Your task to perform on an android device: Search for custom wallets on etsy. Image 0: 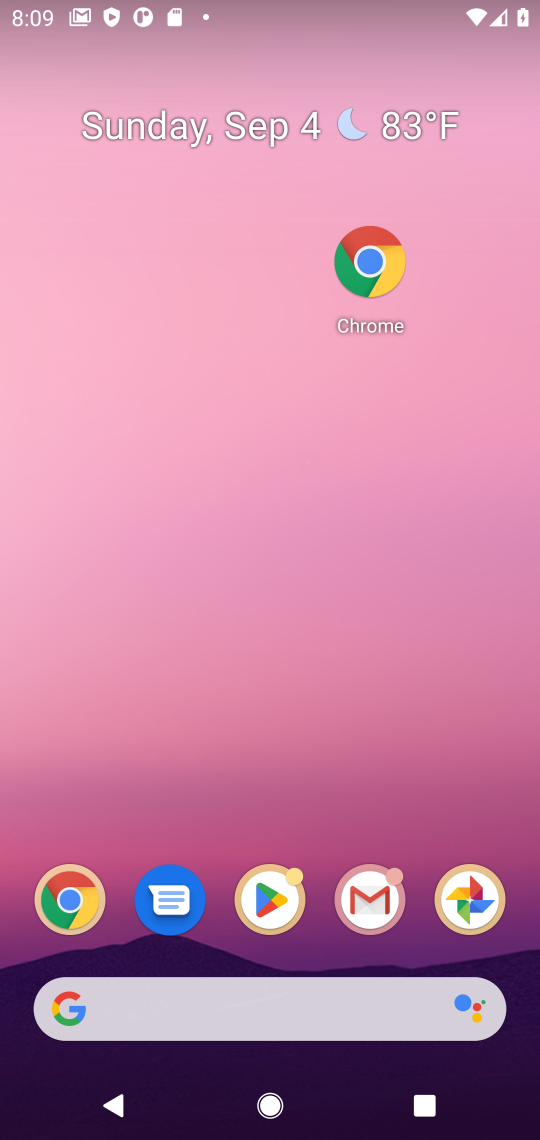
Step 0: click (383, 290)
Your task to perform on an android device: Search for custom wallets on etsy. Image 1: 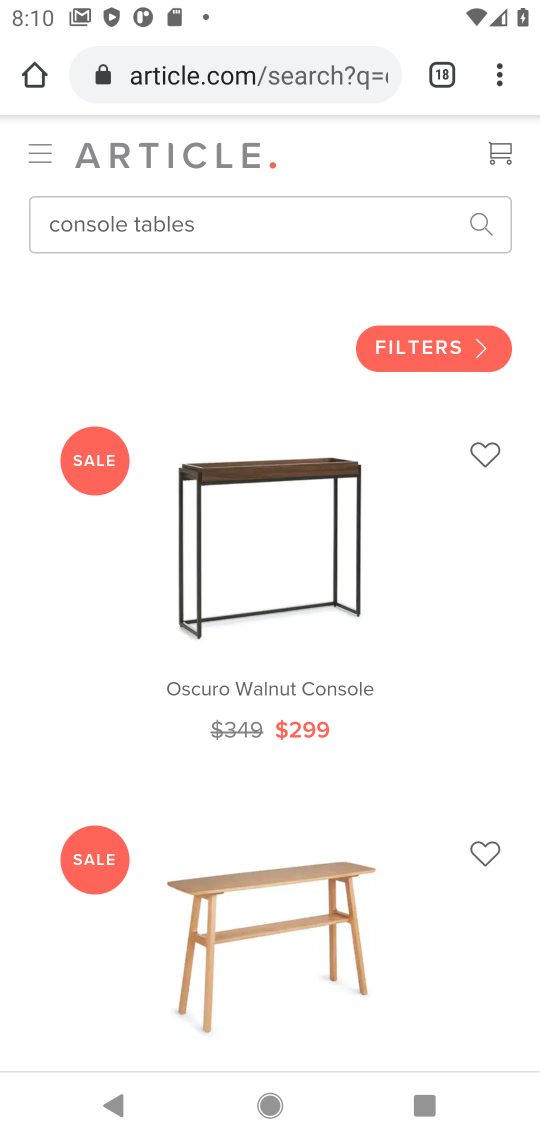
Step 1: click (445, 76)
Your task to perform on an android device: Search for custom wallets on etsy. Image 2: 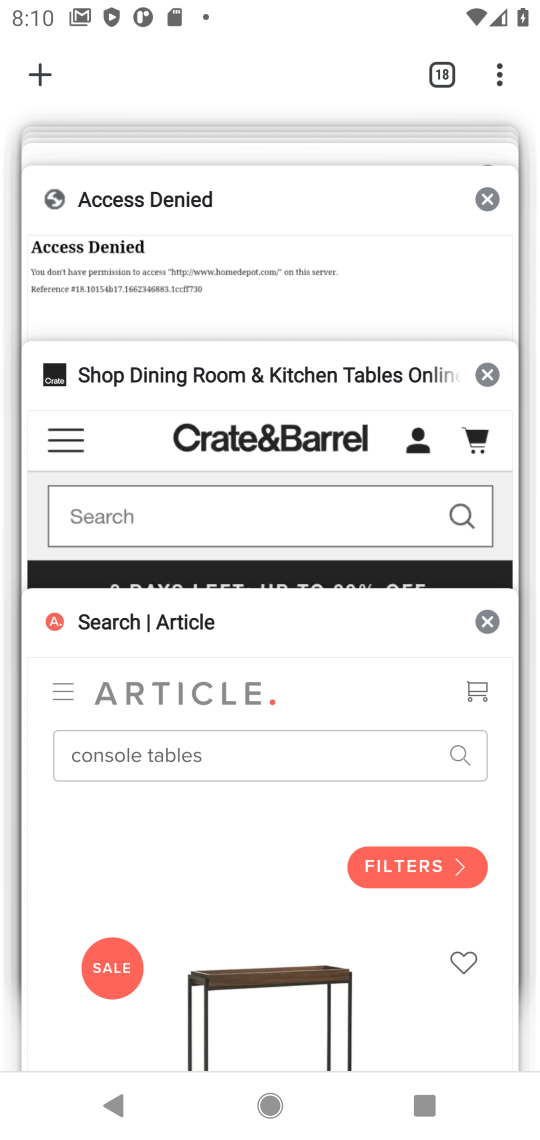
Step 2: click (488, 198)
Your task to perform on an android device: Search for custom wallets on etsy. Image 3: 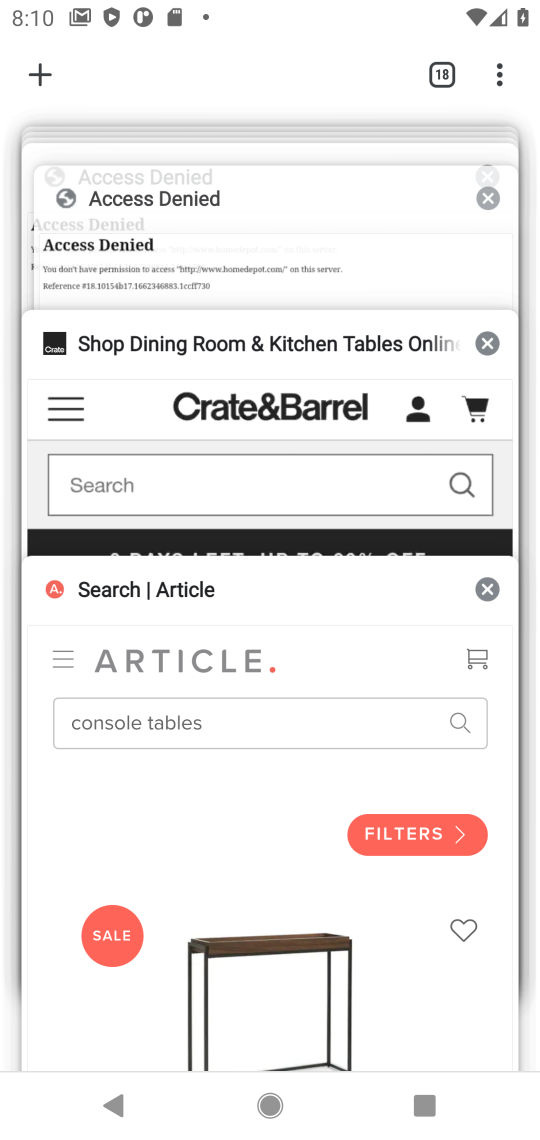
Step 3: click (488, 198)
Your task to perform on an android device: Search for custom wallets on etsy. Image 4: 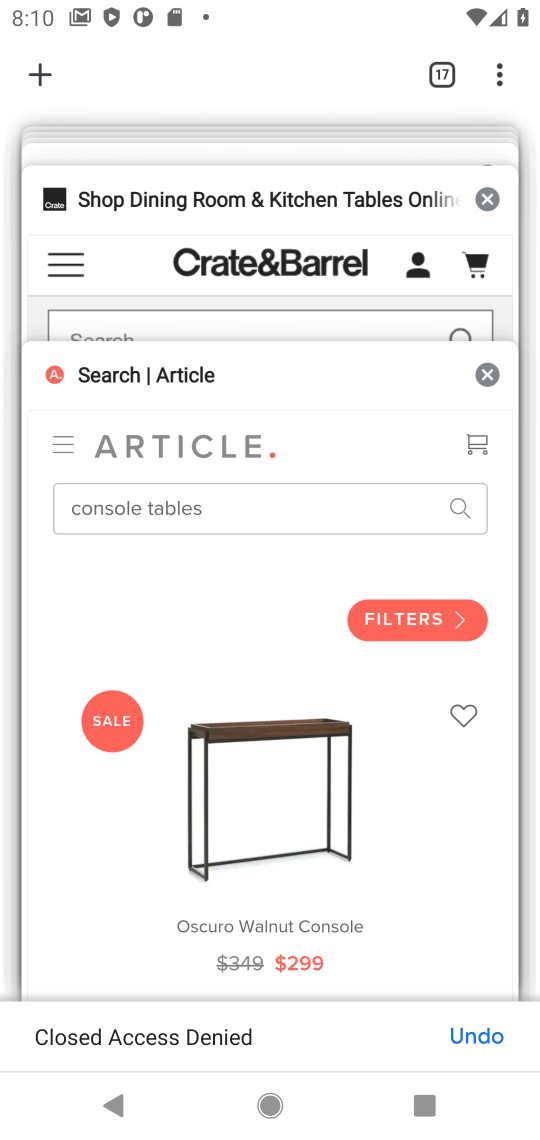
Step 4: click (488, 198)
Your task to perform on an android device: Search for custom wallets on etsy. Image 5: 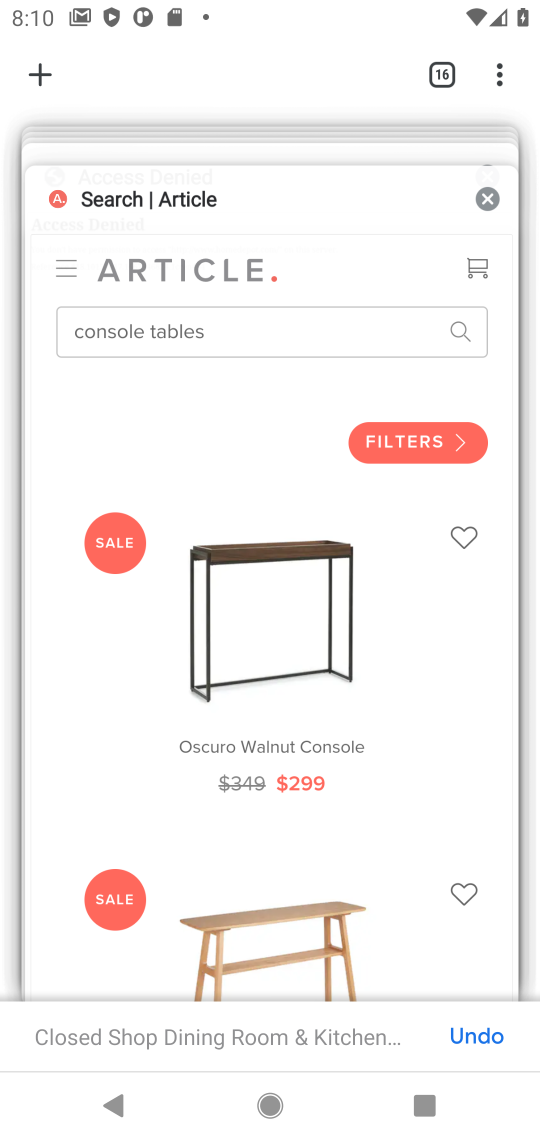
Step 5: click (488, 198)
Your task to perform on an android device: Search for custom wallets on etsy. Image 6: 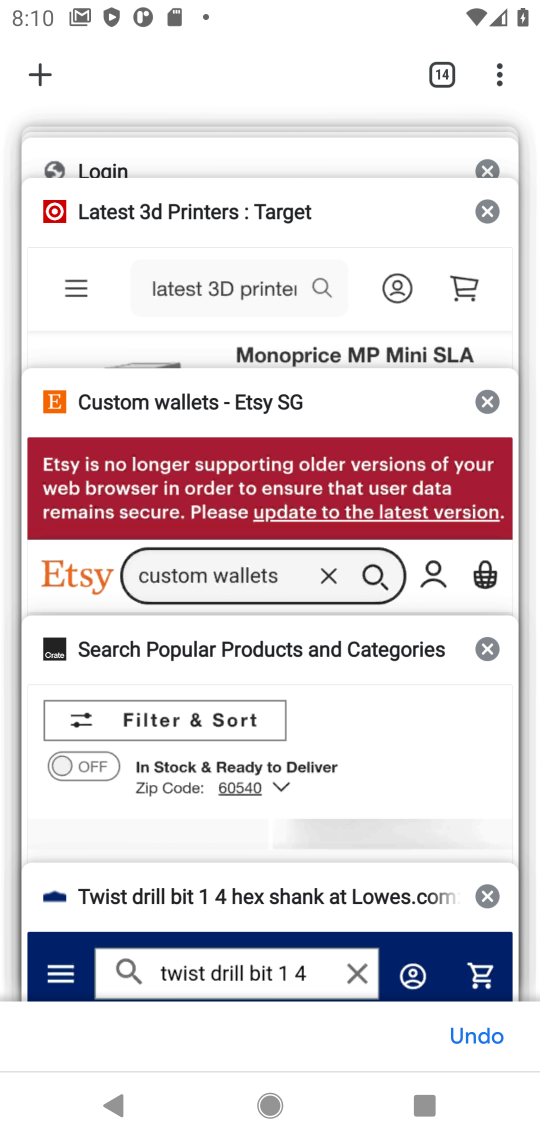
Step 6: click (486, 182)
Your task to perform on an android device: Search for custom wallets on etsy. Image 7: 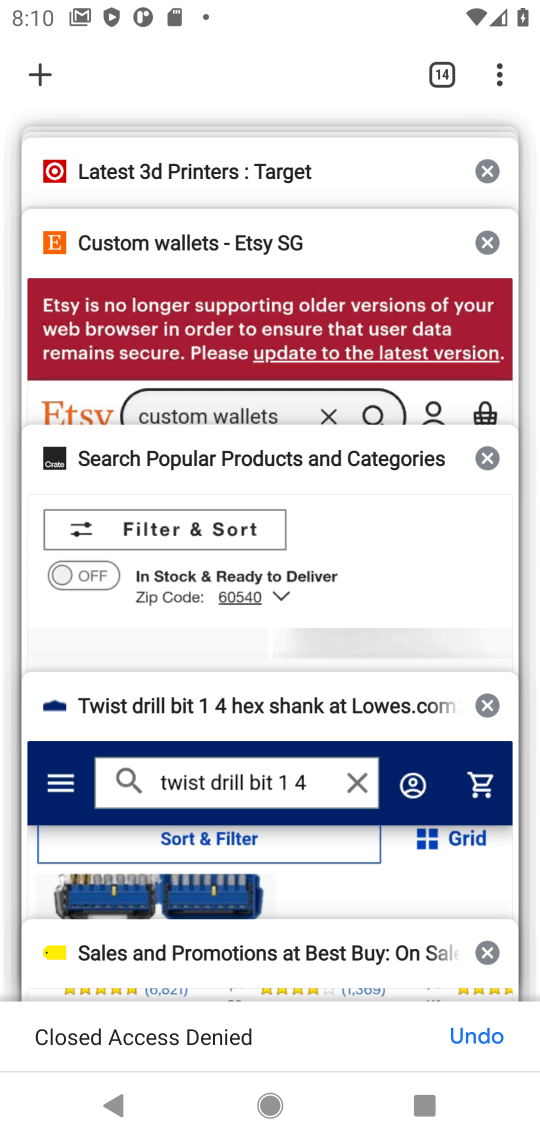
Step 7: click (486, 182)
Your task to perform on an android device: Search for custom wallets on etsy. Image 8: 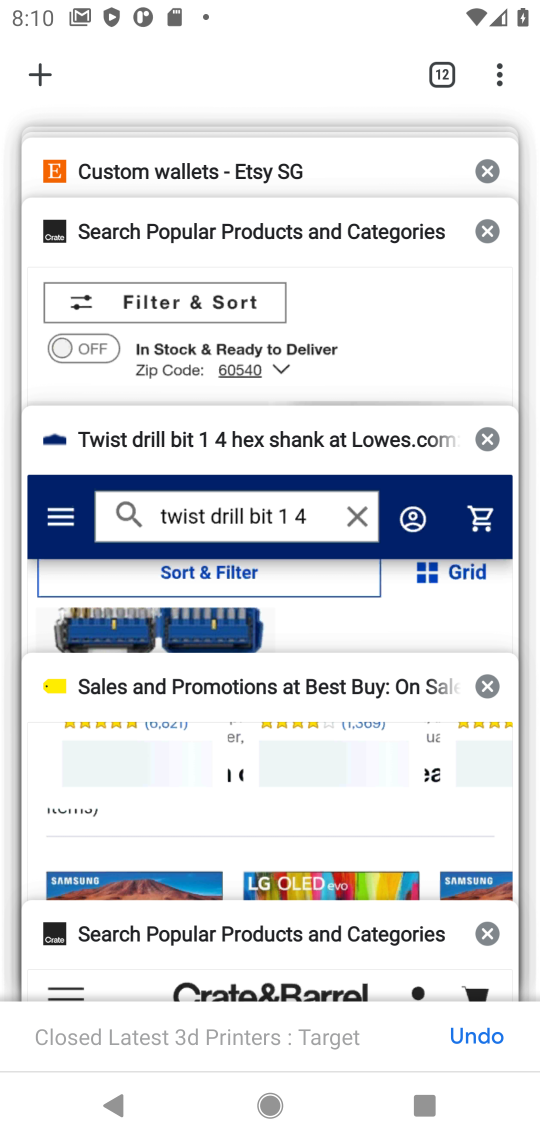
Step 8: click (486, 182)
Your task to perform on an android device: Search for custom wallets on etsy. Image 9: 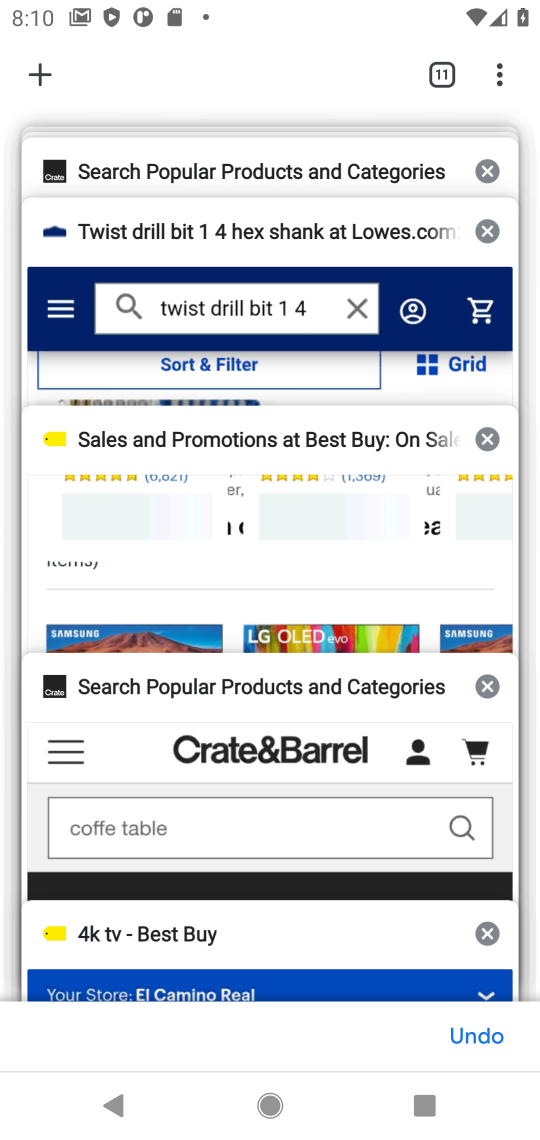
Step 9: click (486, 182)
Your task to perform on an android device: Search for custom wallets on etsy. Image 10: 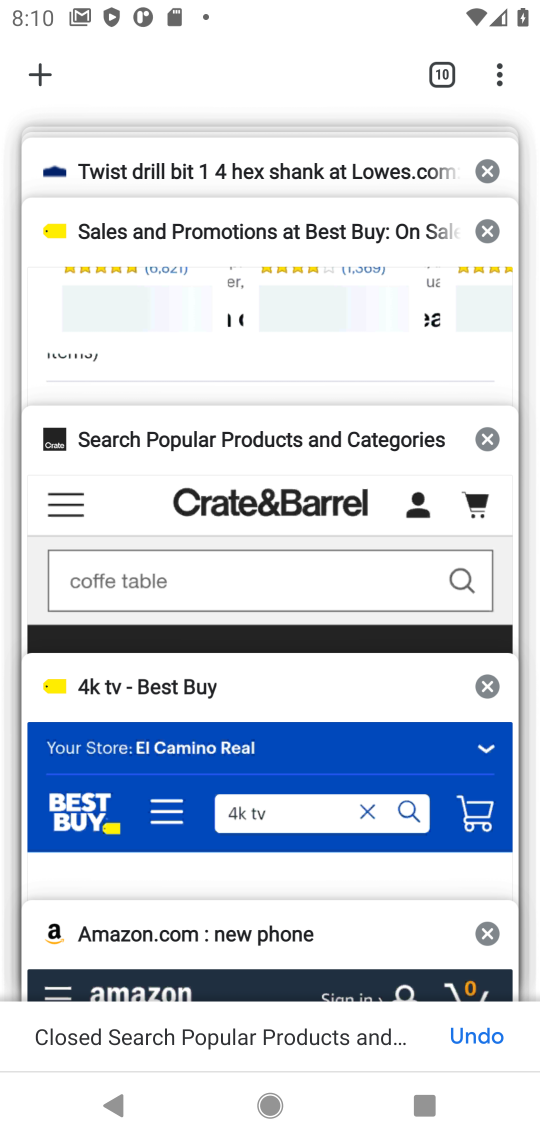
Step 10: click (486, 182)
Your task to perform on an android device: Search for custom wallets on etsy. Image 11: 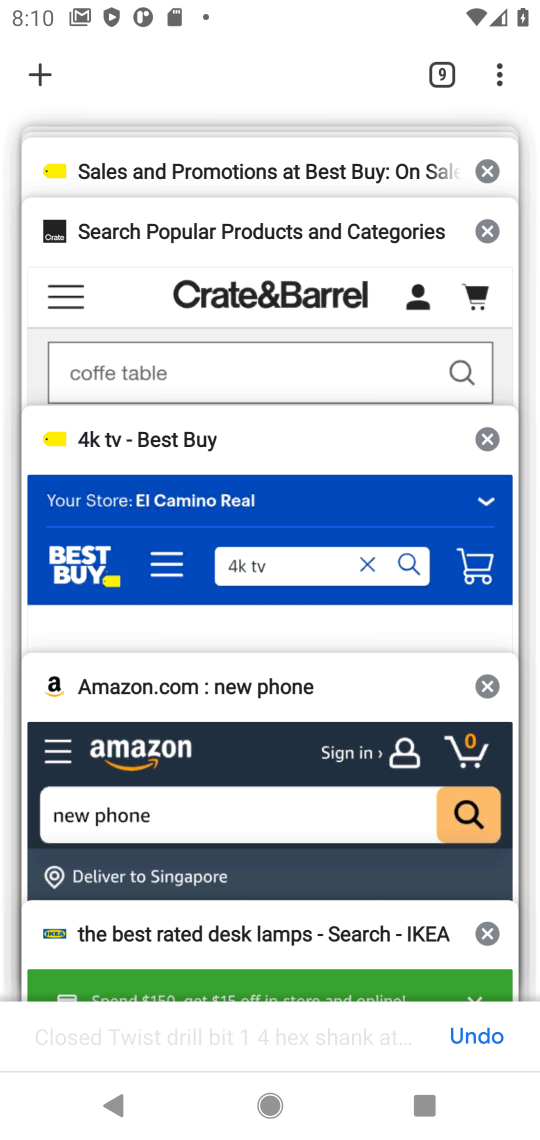
Step 11: click (486, 182)
Your task to perform on an android device: Search for custom wallets on etsy. Image 12: 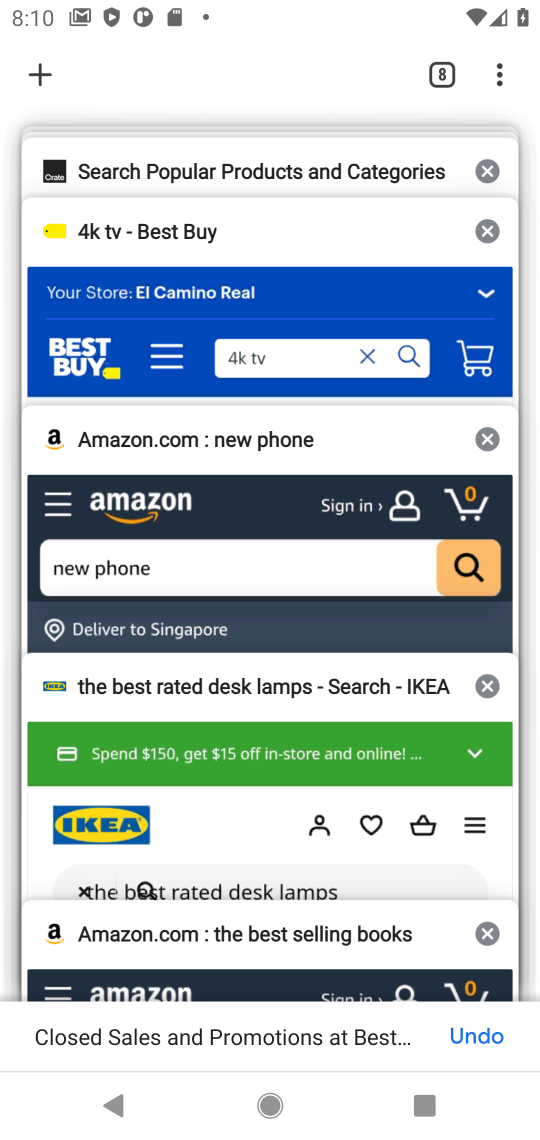
Step 12: click (486, 175)
Your task to perform on an android device: Search for custom wallets on etsy. Image 13: 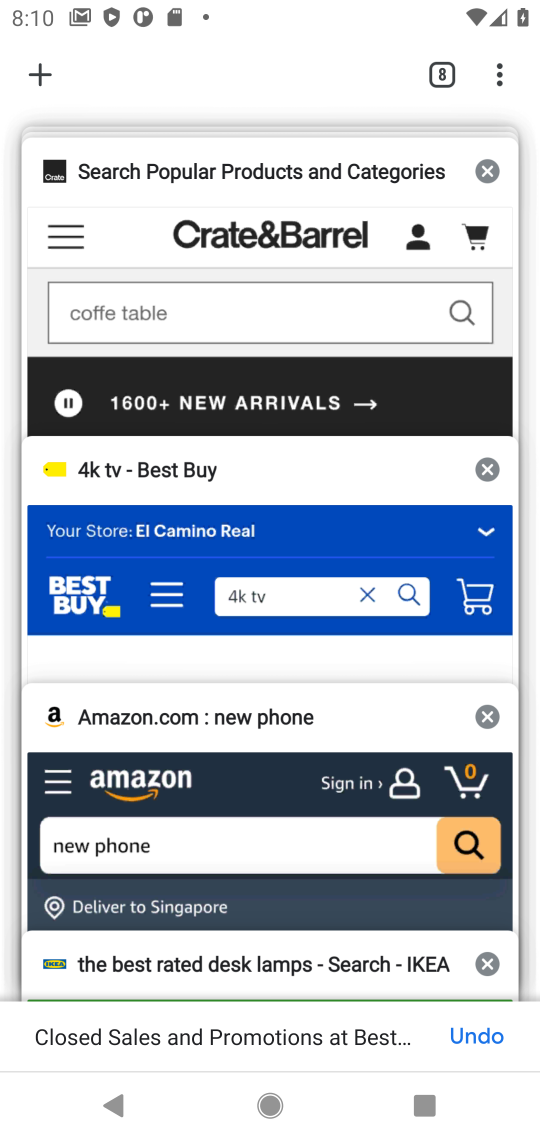
Step 13: click (486, 175)
Your task to perform on an android device: Search for custom wallets on etsy. Image 14: 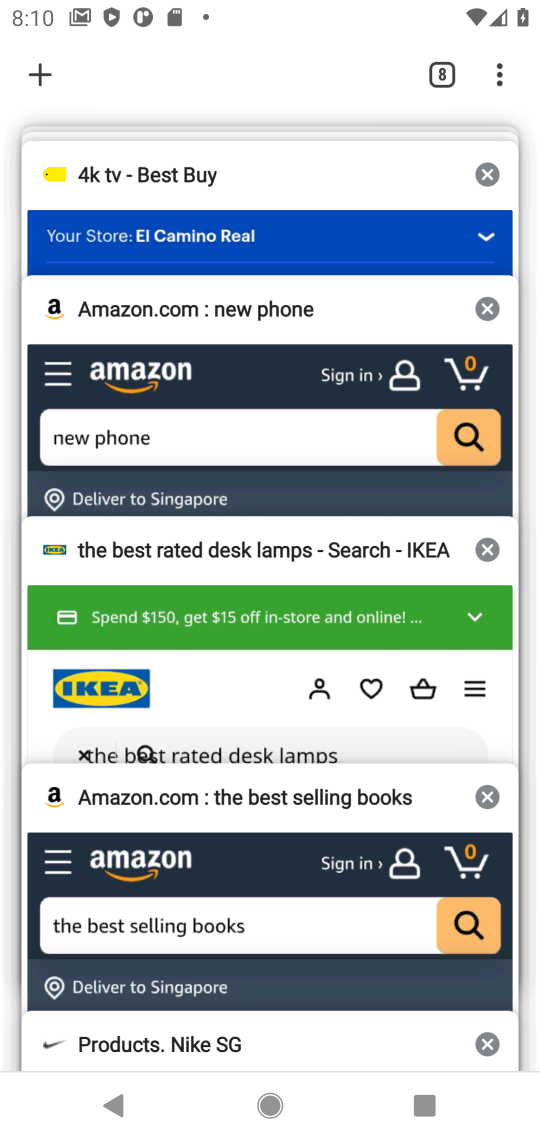
Step 14: click (486, 175)
Your task to perform on an android device: Search for custom wallets on etsy. Image 15: 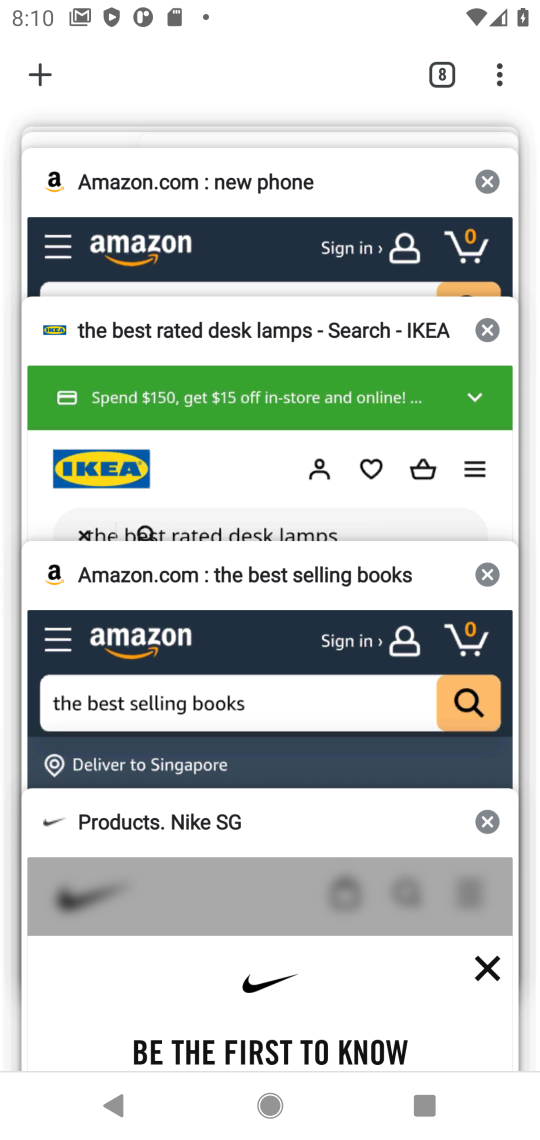
Step 15: click (486, 175)
Your task to perform on an android device: Search for custom wallets on etsy. Image 16: 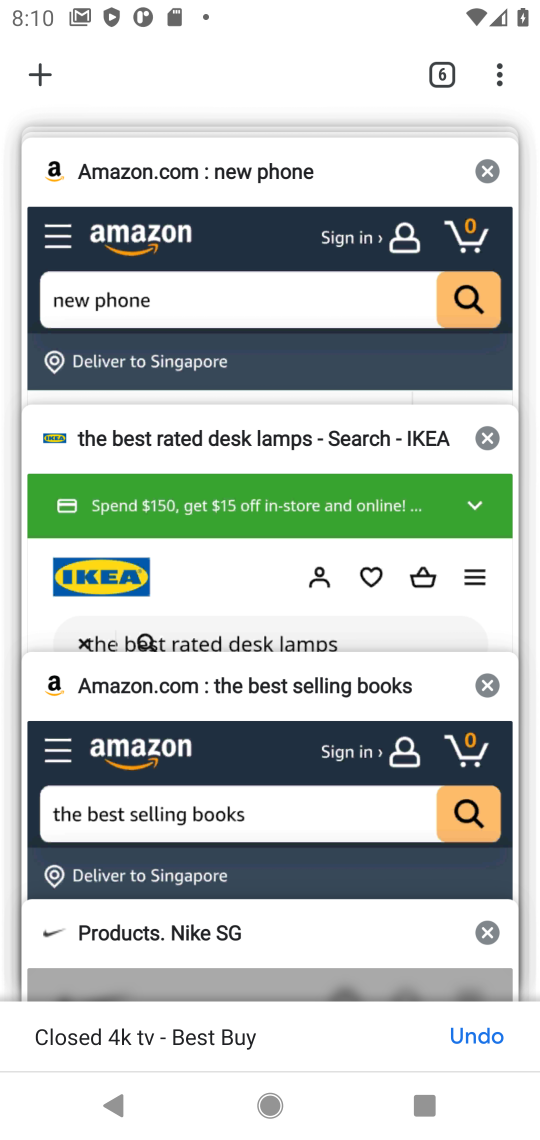
Step 16: click (486, 175)
Your task to perform on an android device: Search for custom wallets on etsy. Image 17: 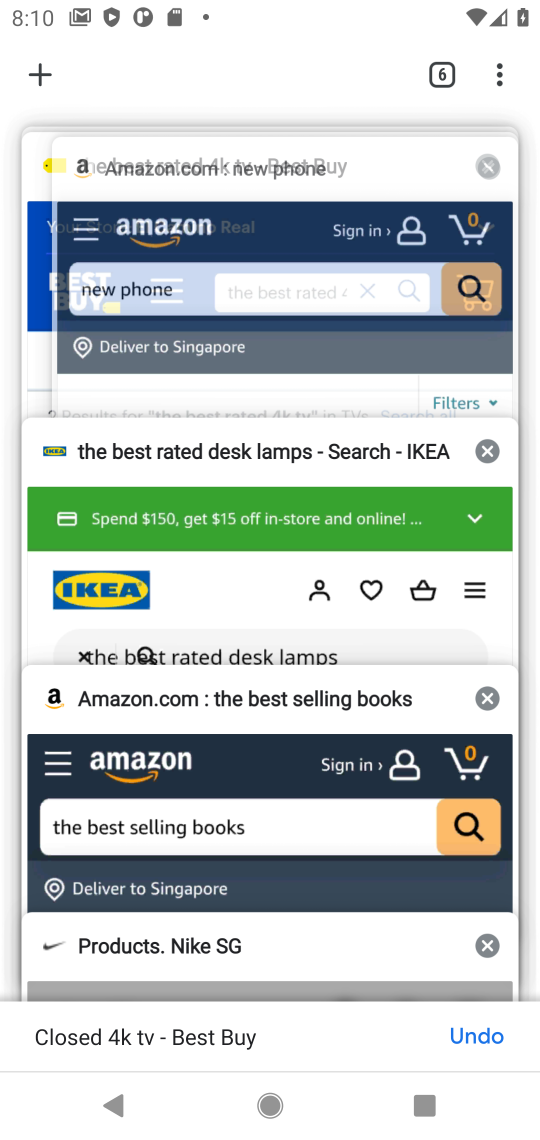
Step 17: click (486, 175)
Your task to perform on an android device: Search for custom wallets on etsy. Image 18: 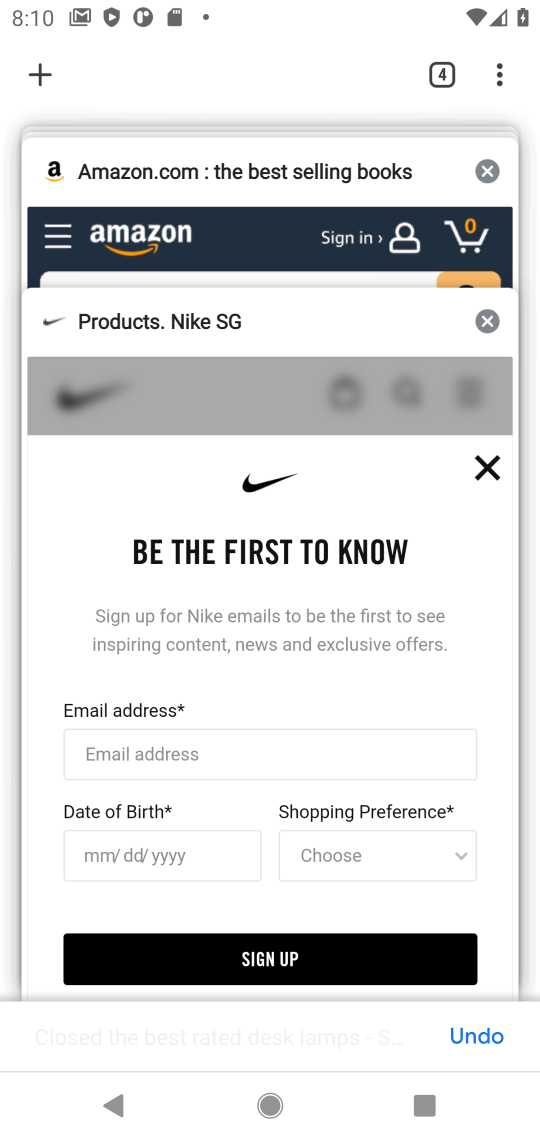
Step 18: click (486, 175)
Your task to perform on an android device: Search for custom wallets on etsy. Image 19: 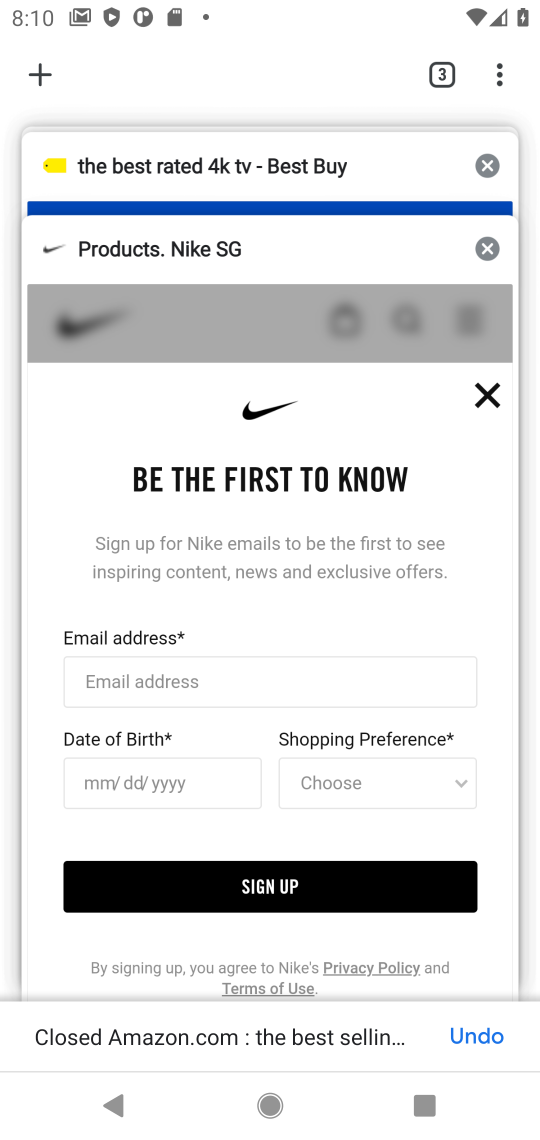
Step 19: click (486, 175)
Your task to perform on an android device: Search for custom wallets on etsy. Image 20: 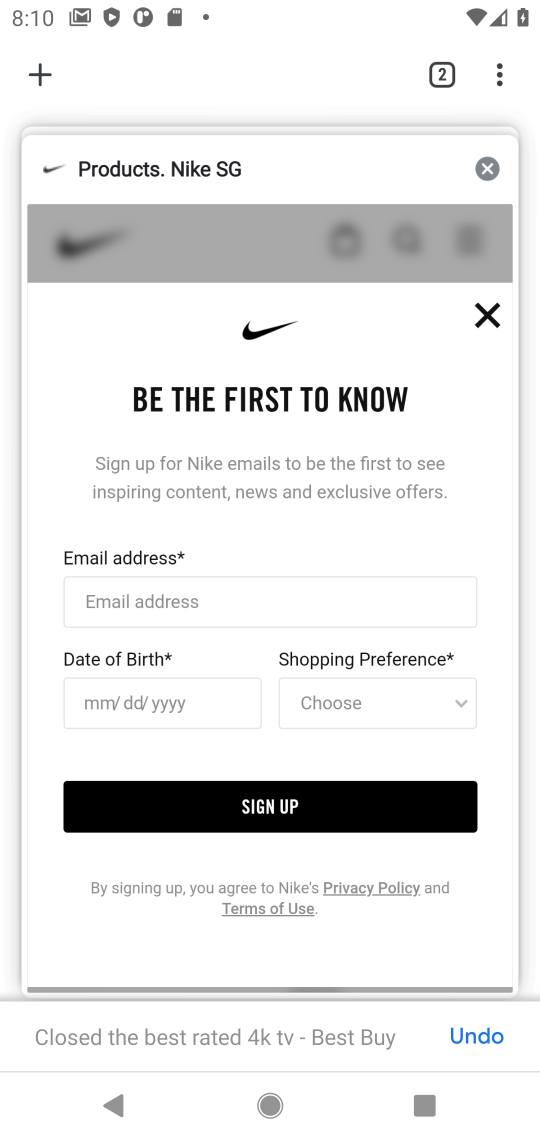
Step 20: click (486, 175)
Your task to perform on an android device: Search for custom wallets on etsy. Image 21: 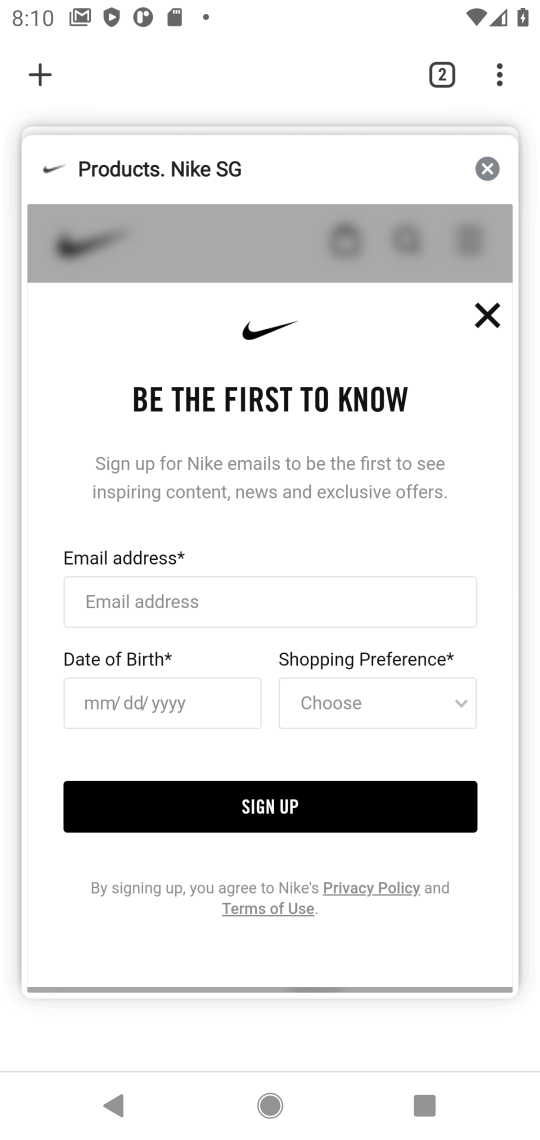
Step 21: click (486, 175)
Your task to perform on an android device: Search for custom wallets on etsy. Image 22: 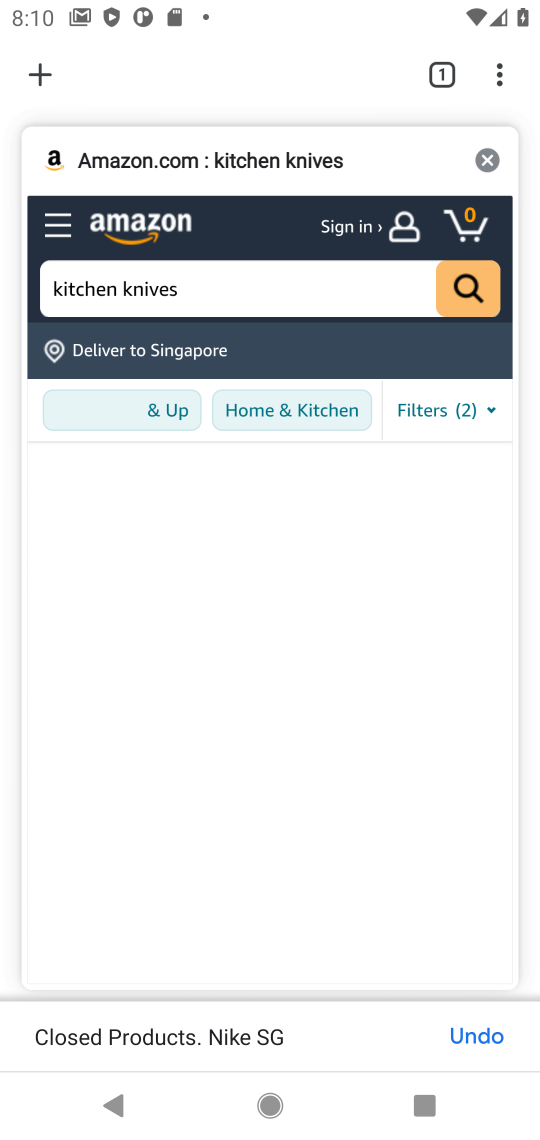
Step 22: click (488, 163)
Your task to perform on an android device: Search for custom wallets on etsy. Image 23: 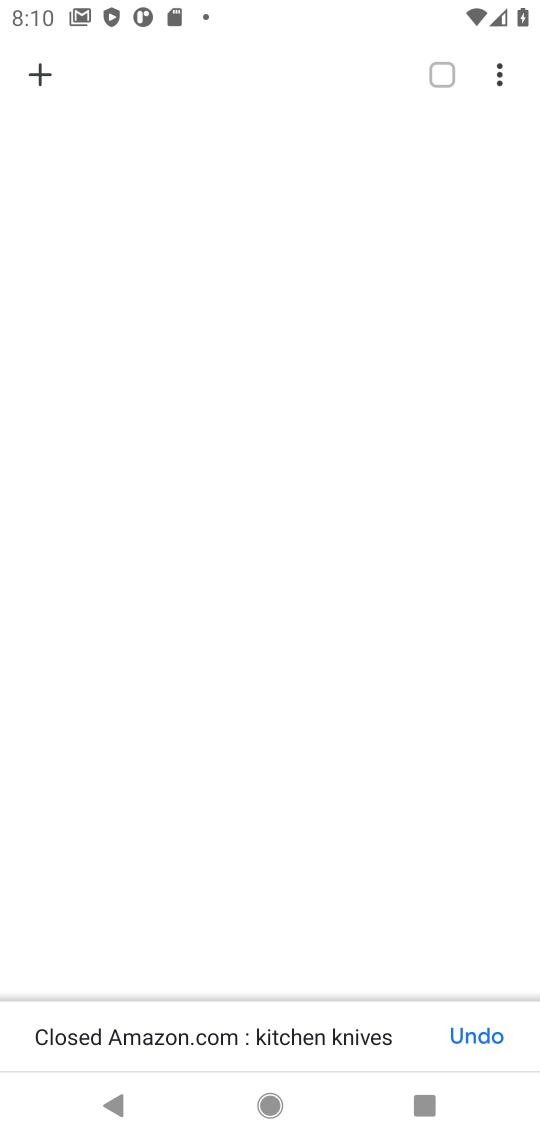
Step 23: click (33, 72)
Your task to perform on an android device: Search for custom wallets on etsy. Image 24: 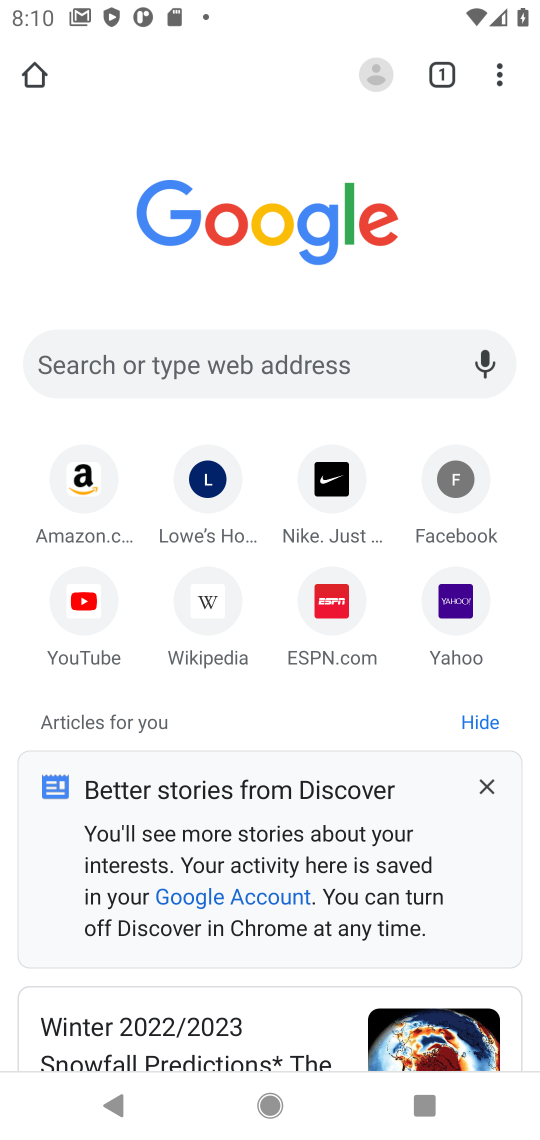
Step 24: click (257, 381)
Your task to perform on an android device: Search for custom wallets on etsy. Image 25: 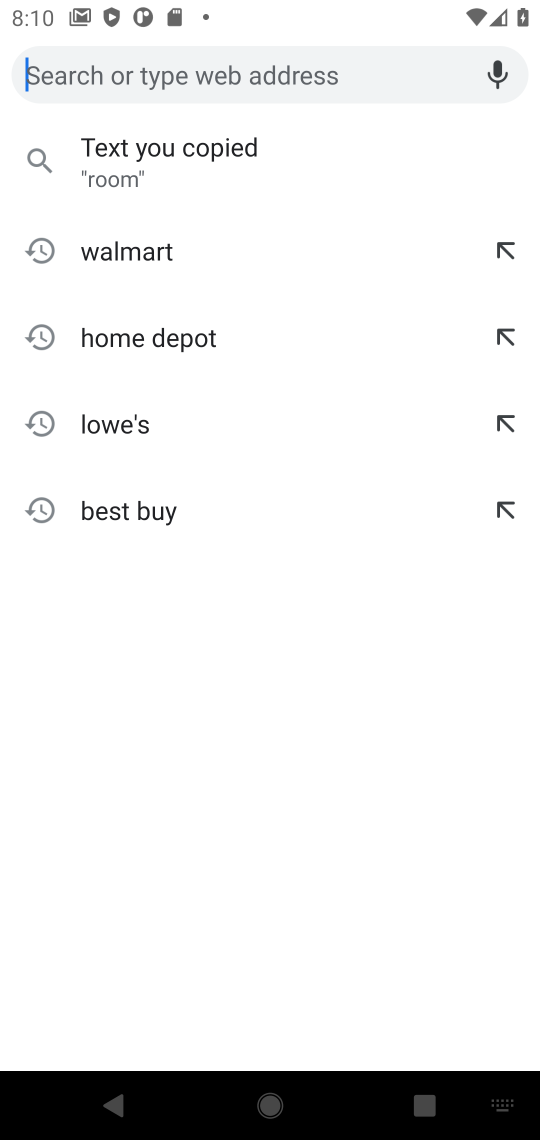
Step 25: type "etsy"
Your task to perform on an android device: Search for custom wallets on etsy. Image 26: 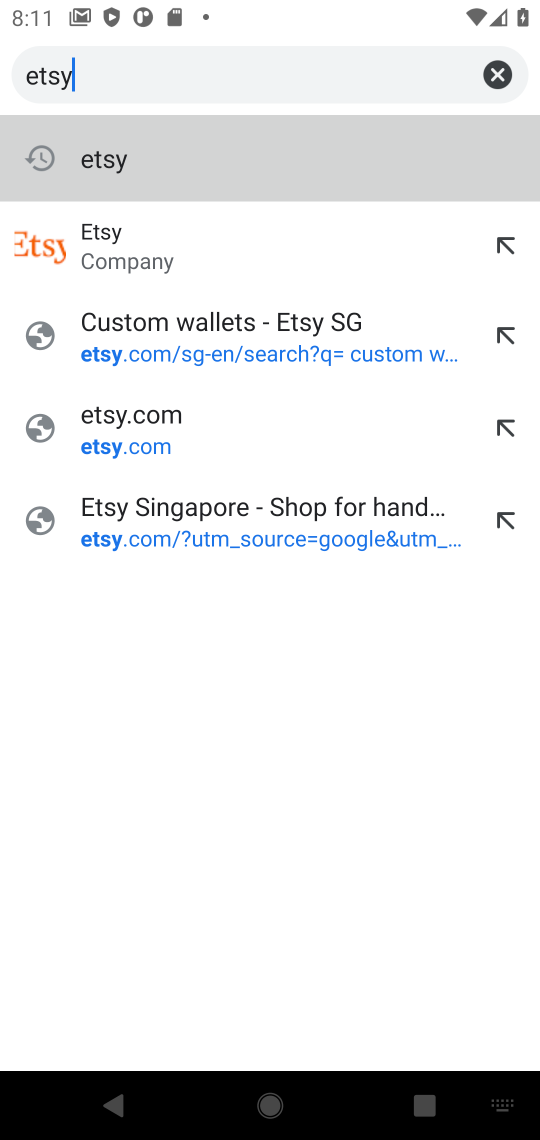
Step 26: click (313, 170)
Your task to perform on an android device: Search for custom wallets on etsy. Image 27: 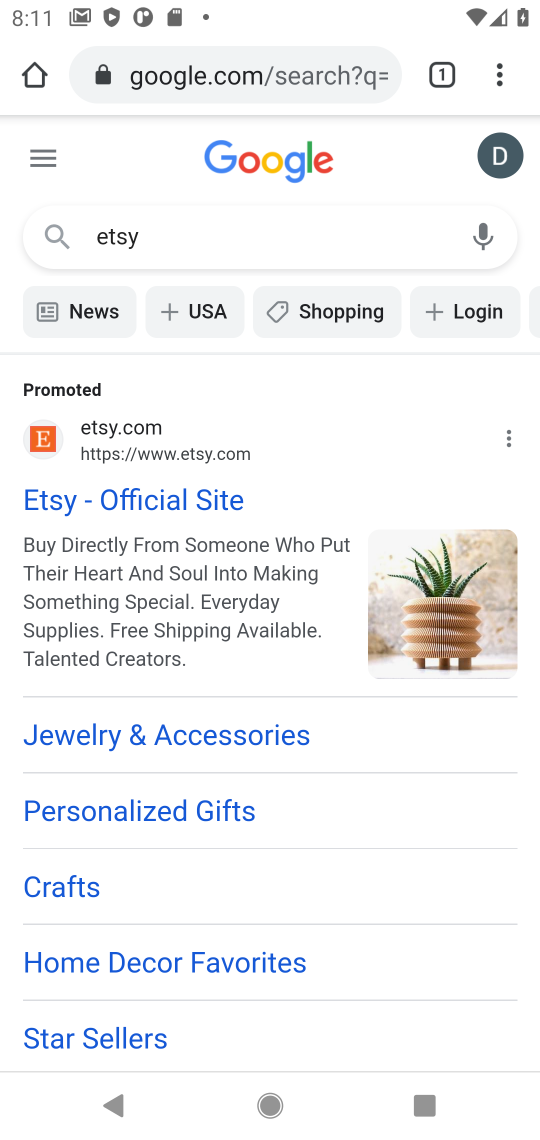
Step 27: click (142, 494)
Your task to perform on an android device: Search for custom wallets on etsy. Image 28: 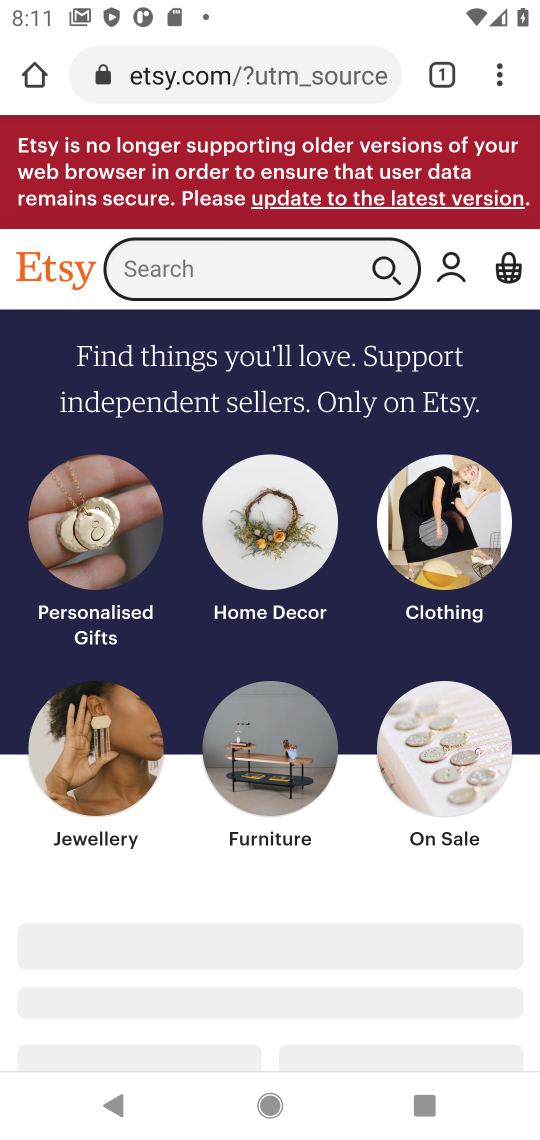
Step 28: click (271, 270)
Your task to perform on an android device: Search for custom wallets on etsy. Image 29: 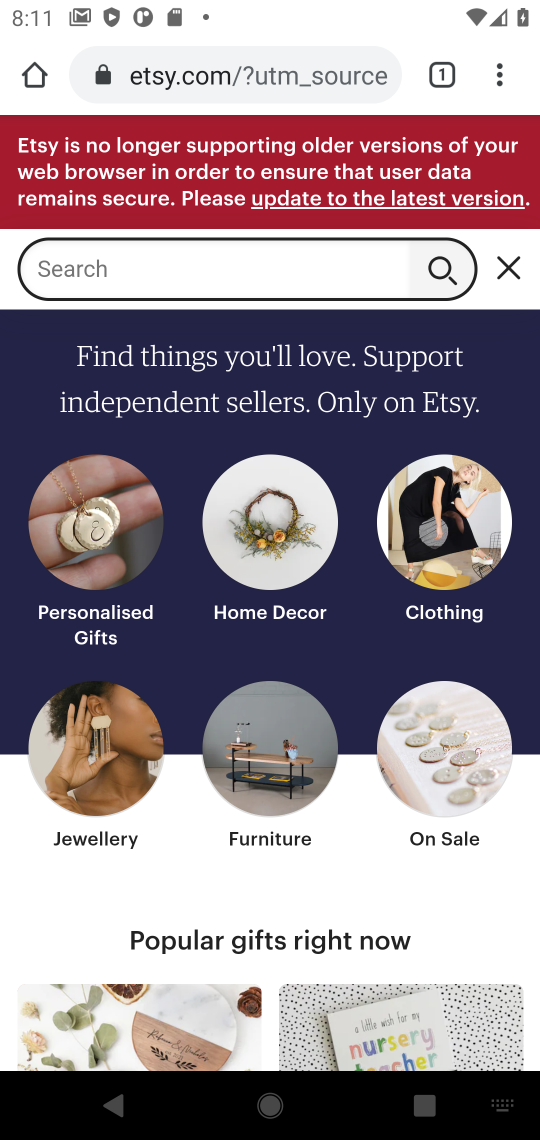
Step 29: type "custom wallet"
Your task to perform on an android device: Search for custom wallets on etsy. Image 30: 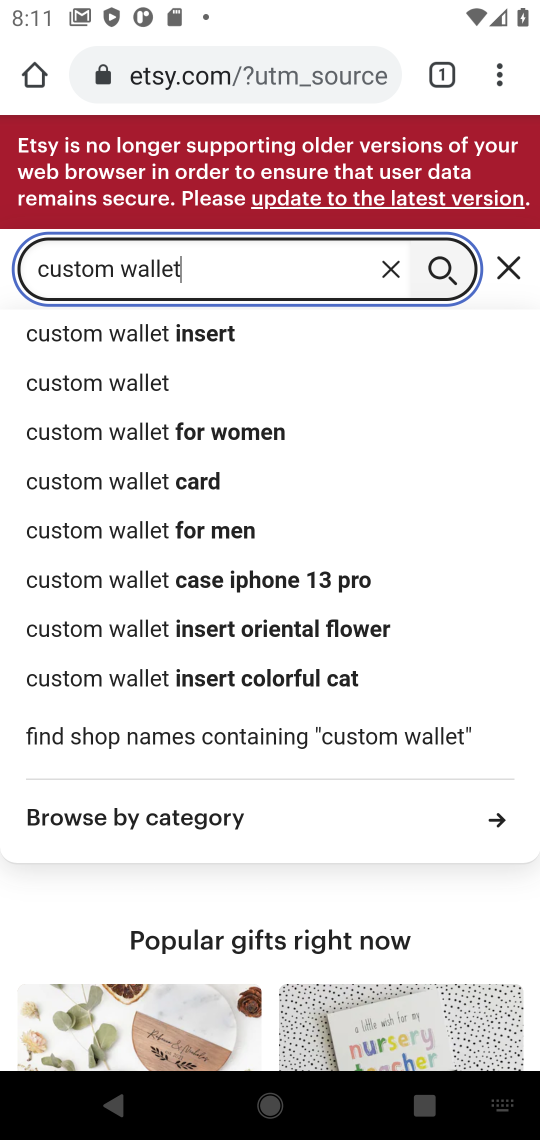
Step 30: click (107, 388)
Your task to perform on an android device: Search for custom wallets on etsy. Image 31: 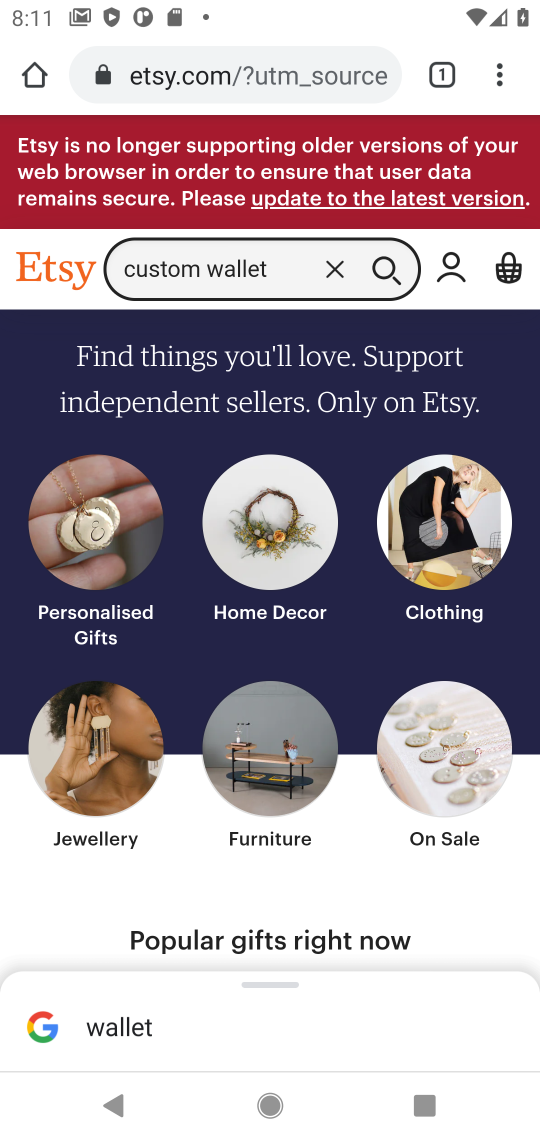
Step 31: click (393, 281)
Your task to perform on an android device: Search for custom wallets on etsy. Image 32: 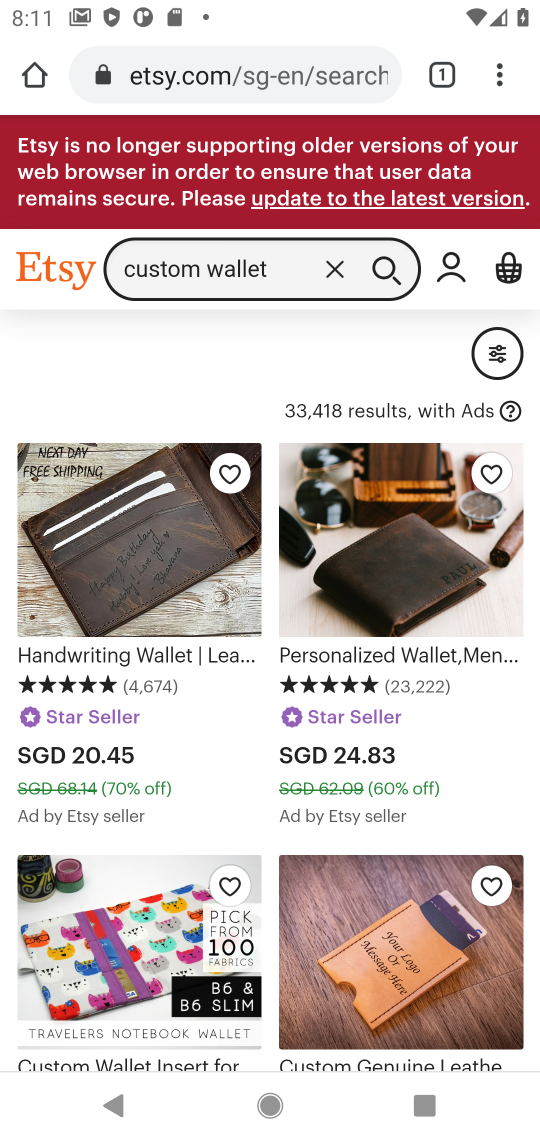
Step 32: task complete